Your task to perform on an android device: Open the stopwatch Image 0: 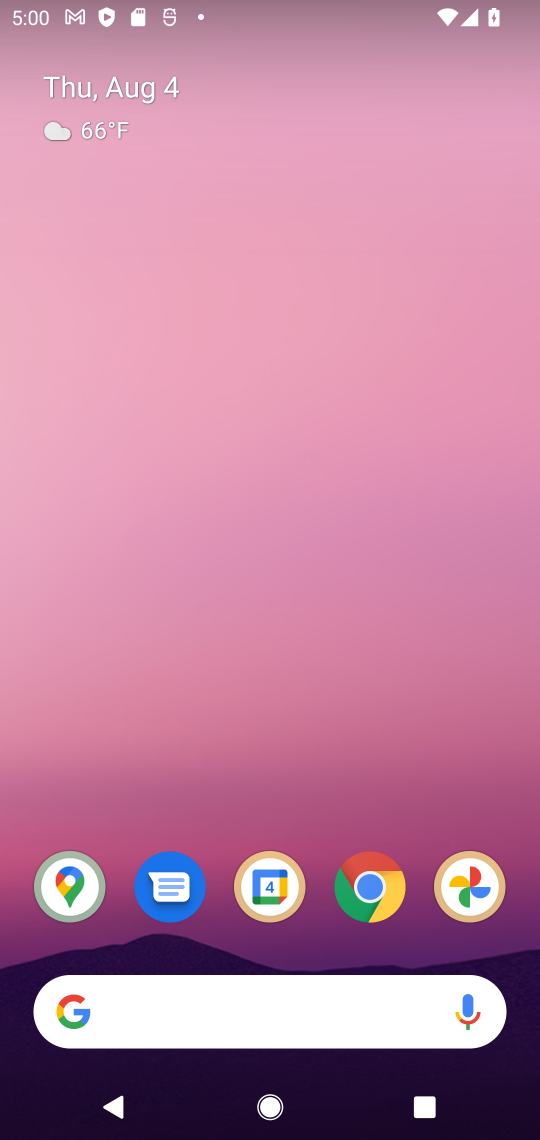
Step 0: drag from (526, 1047) to (0, 50)
Your task to perform on an android device: Open the stopwatch Image 1: 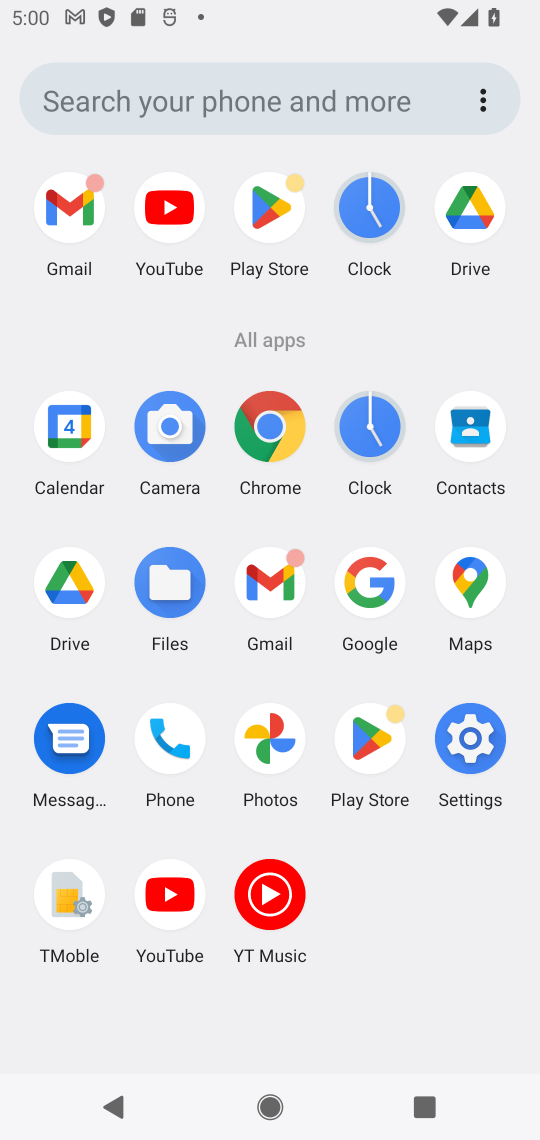
Step 1: click (358, 418)
Your task to perform on an android device: Open the stopwatch Image 2: 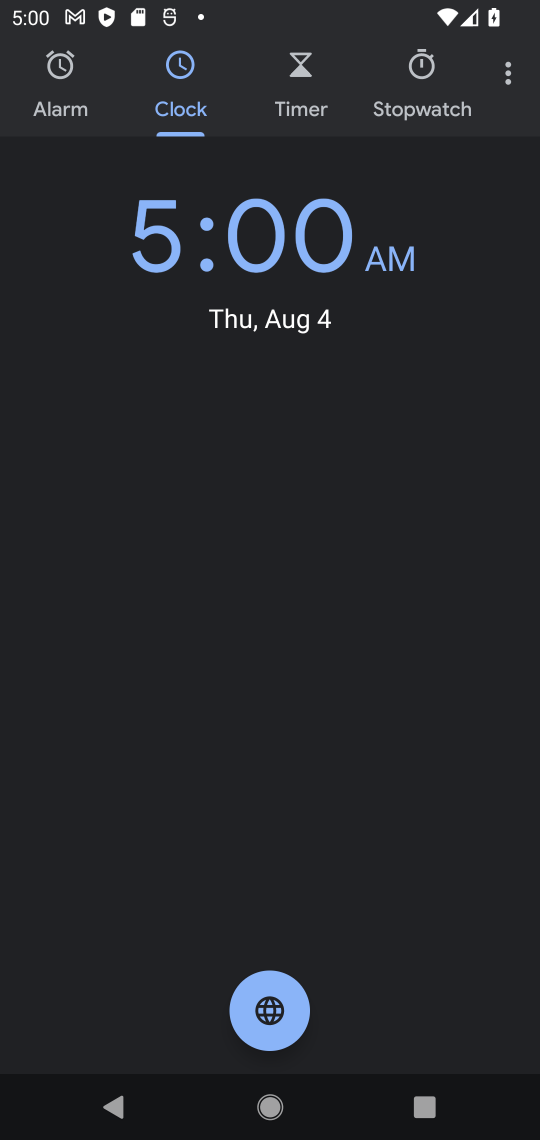
Step 2: click (436, 57)
Your task to perform on an android device: Open the stopwatch Image 3: 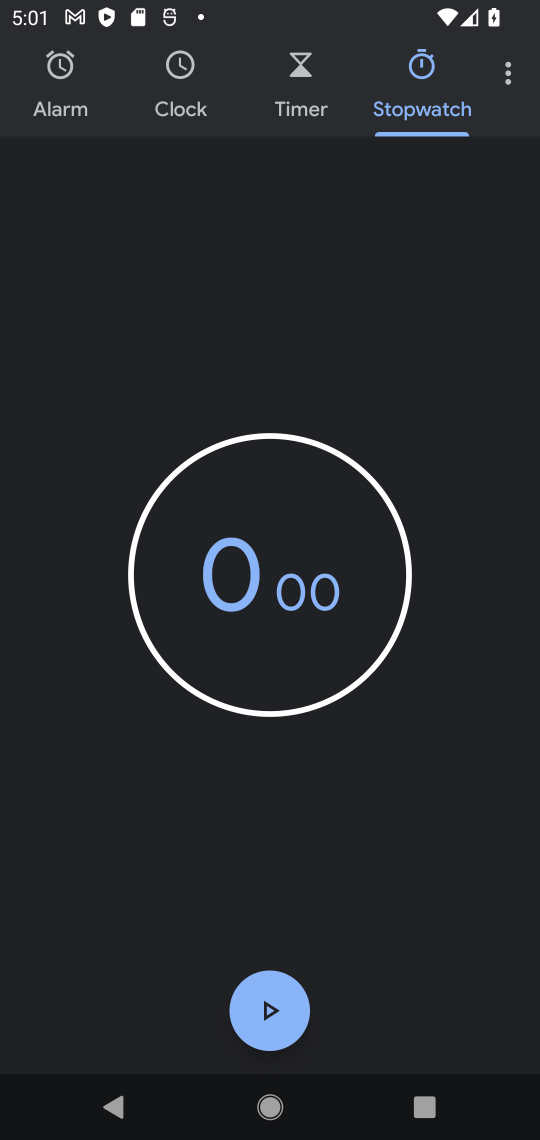
Step 3: click (269, 1013)
Your task to perform on an android device: Open the stopwatch Image 4: 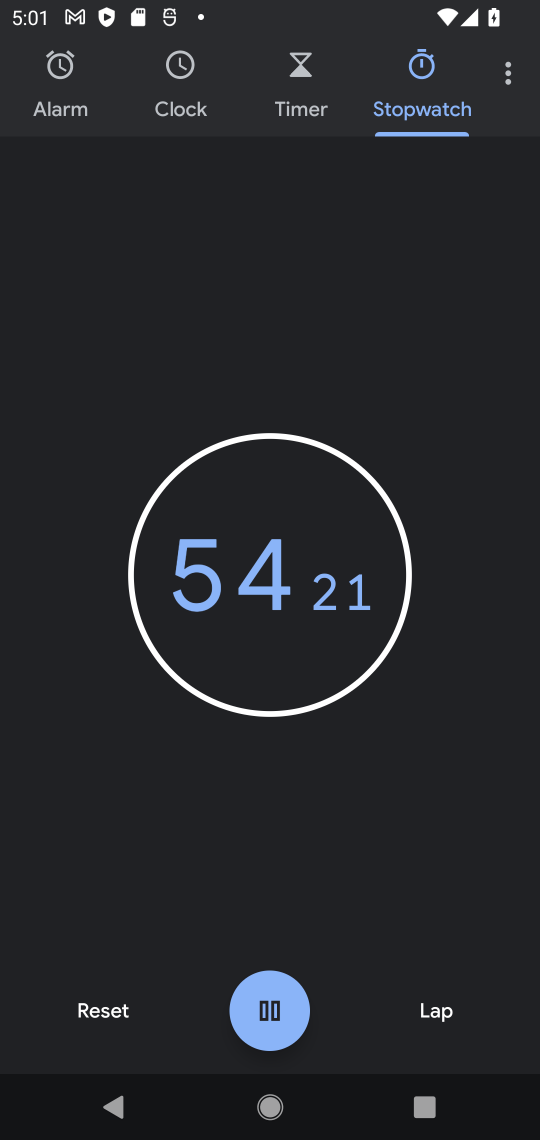
Step 4: task complete